Your task to perform on an android device: Open Google Maps Image 0: 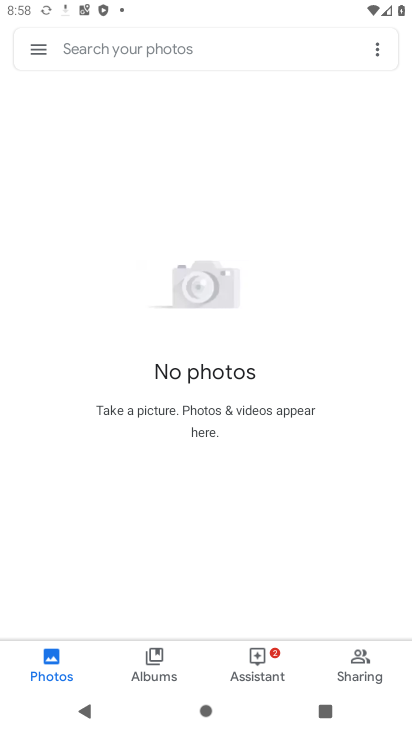
Step 0: press back button
Your task to perform on an android device: Open Google Maps Image 1: 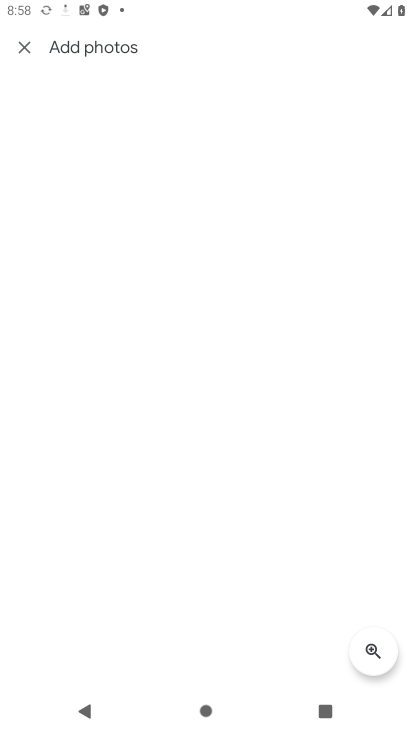
Step 1: press back button
Your task to perform on an android device: Open Google Maps Image 2: 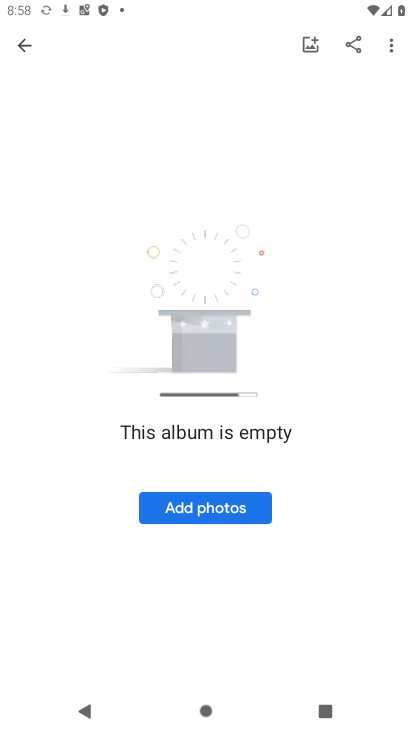
Step 2: press home button
Your task to perform on an android device: Open Google Maps Image 3: 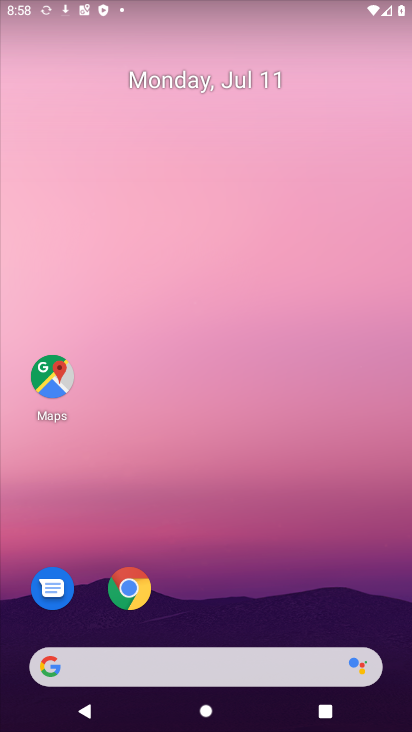
Step 3: click (57, 378)
Your task to perform on an android device: Open Google Maps Image 4: 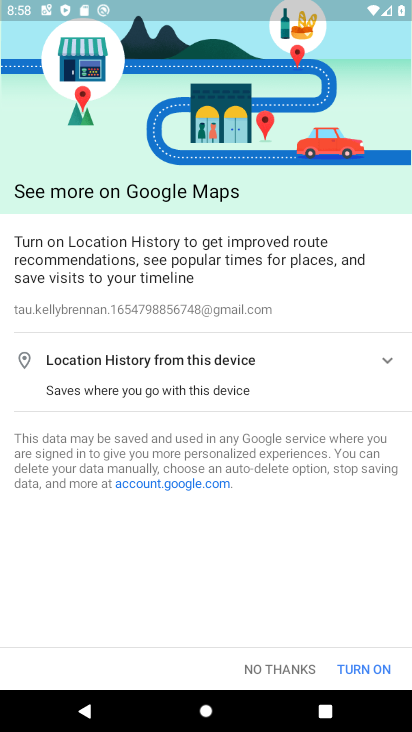
Step 4: task complete